Your task to perform on an android device: Open my contact list Image 0: 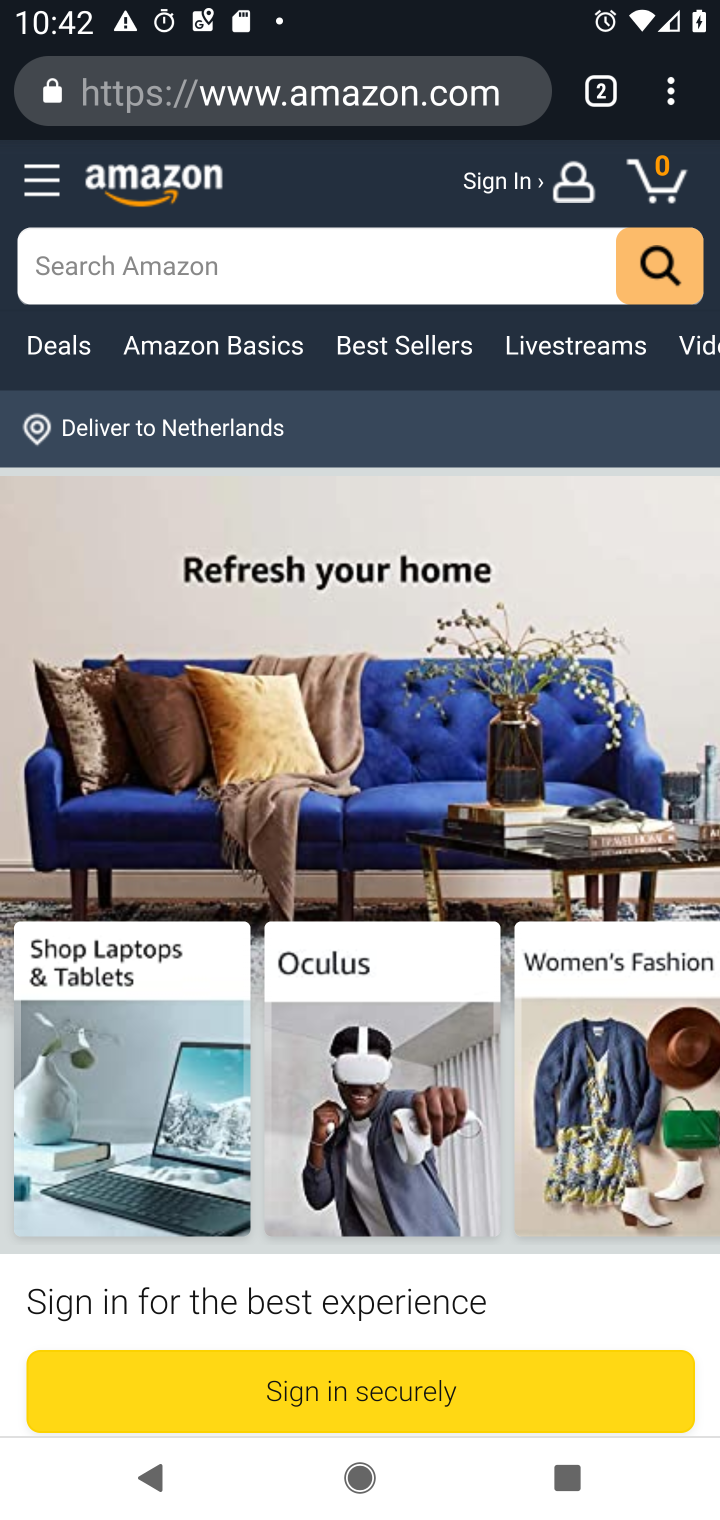
Step 0: press home button
Your task to perform on an android device: Open my contact list Image 1: 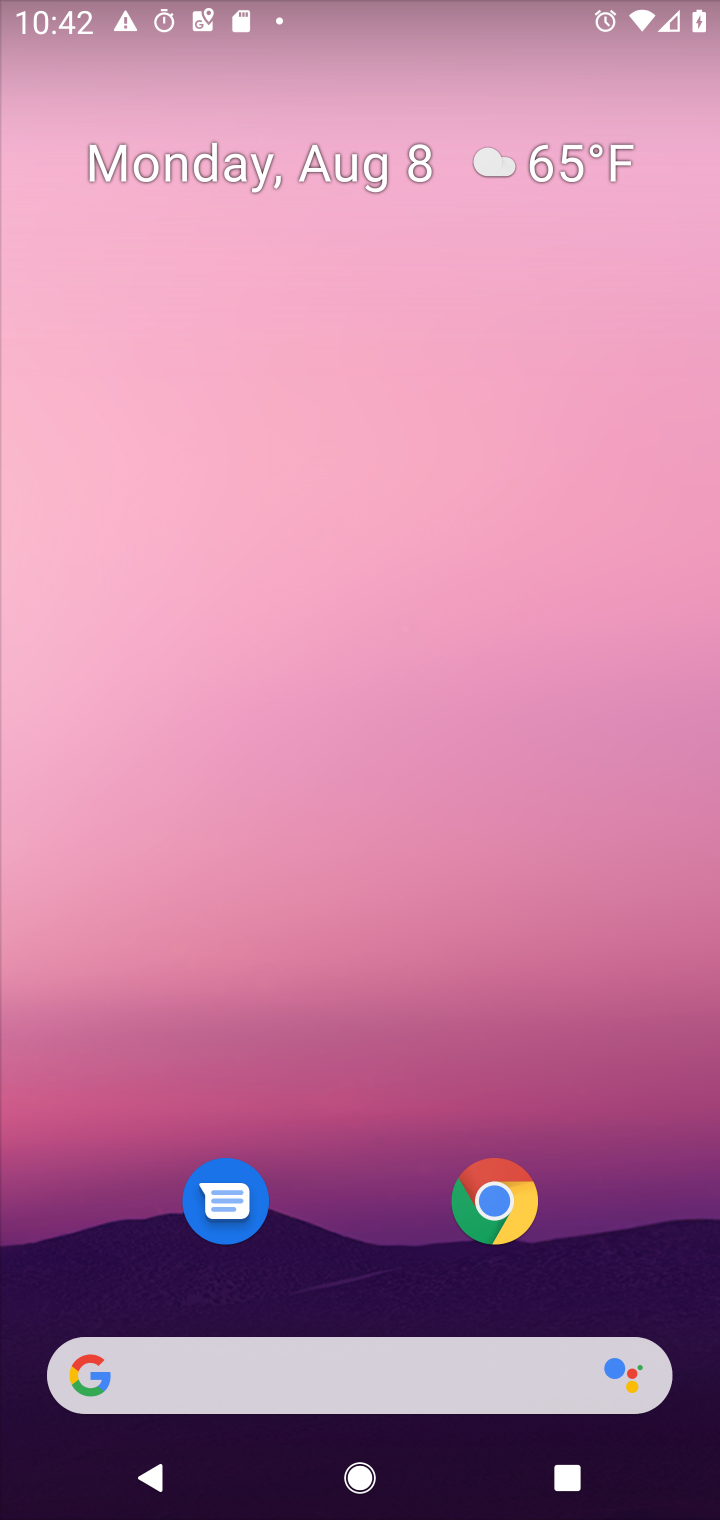
Step 1: drag from (364, 1112) to (388, 347)
Your task to perform on an android device: Open my contact list Image 2: 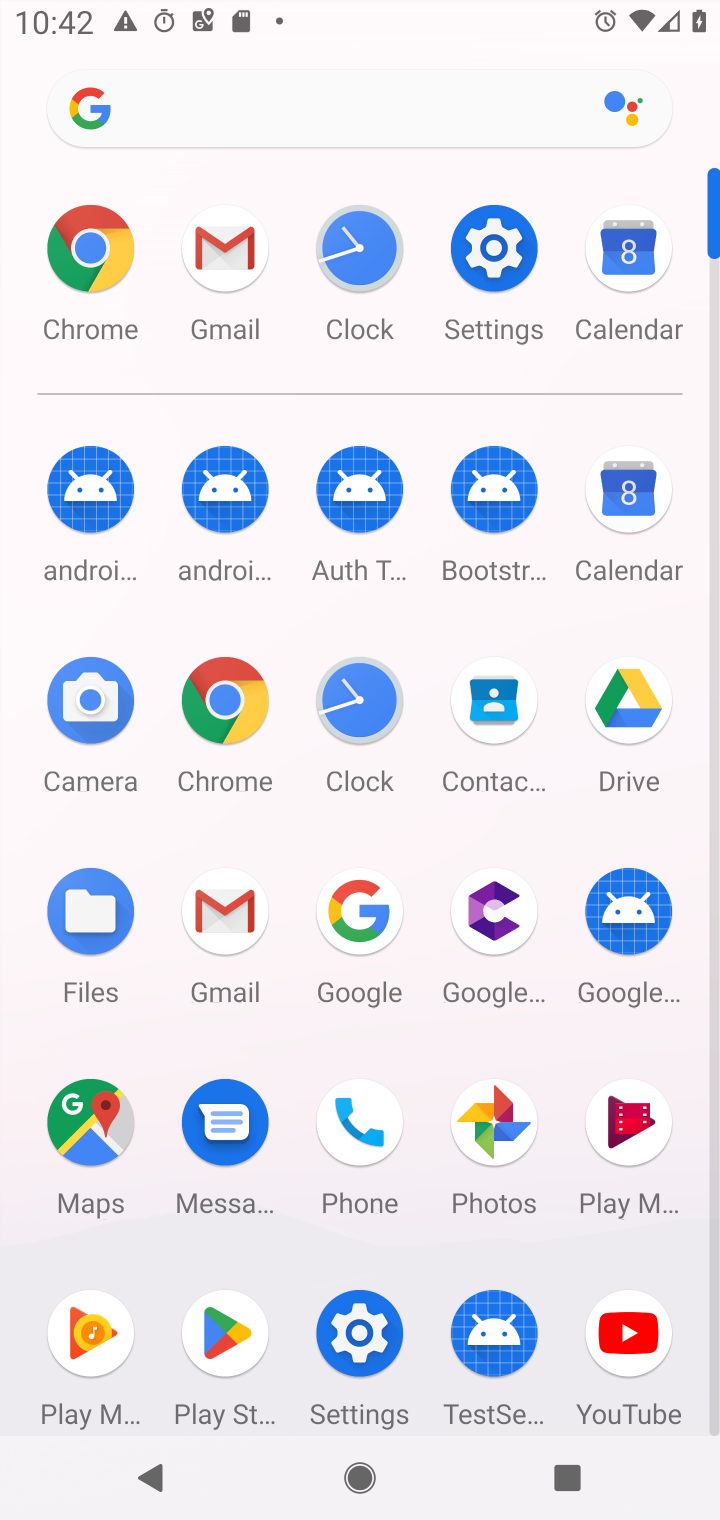
Step 2: click (495, 721)
Your task to perform on an android device: Open my contact list Image 3: 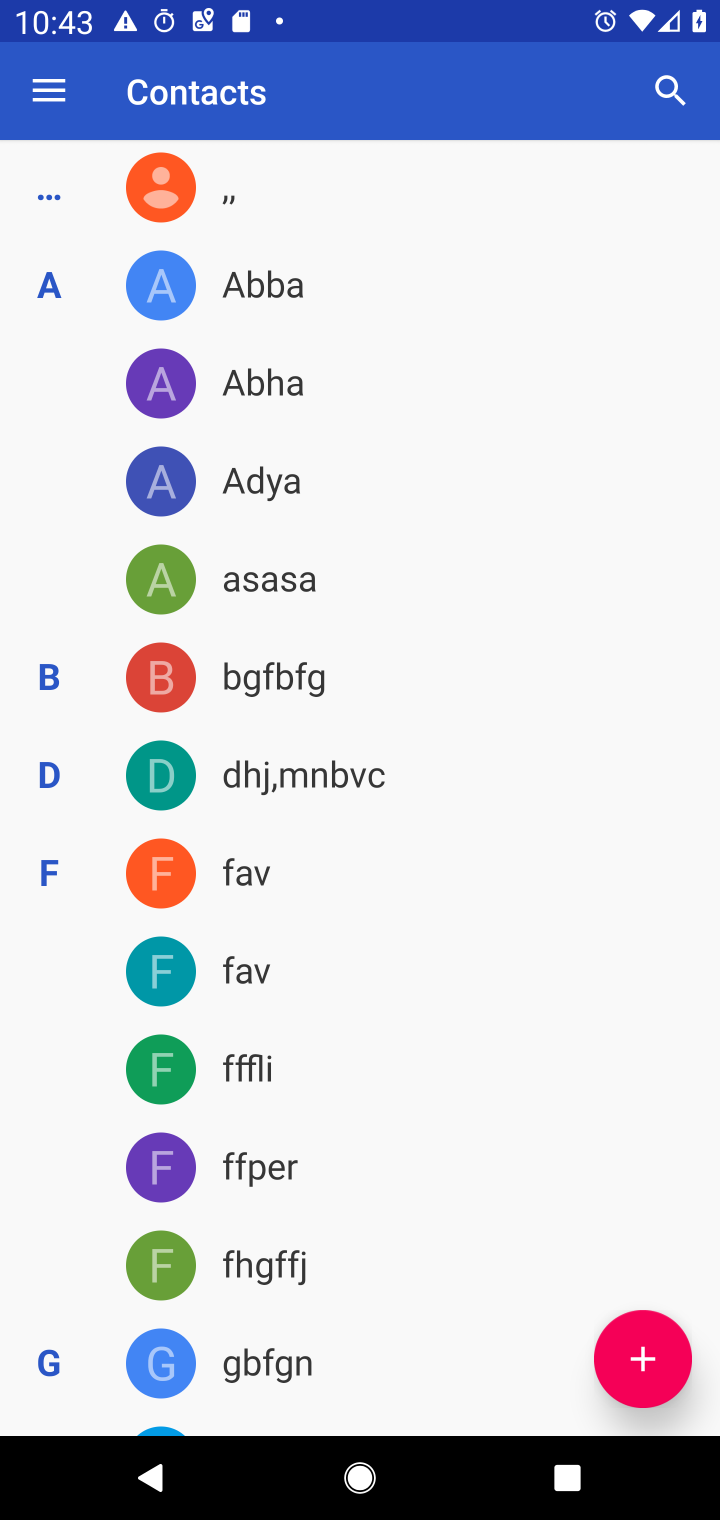
Step 3: task complete